Your task to perform on an android device: Go to Amazon Image 0: 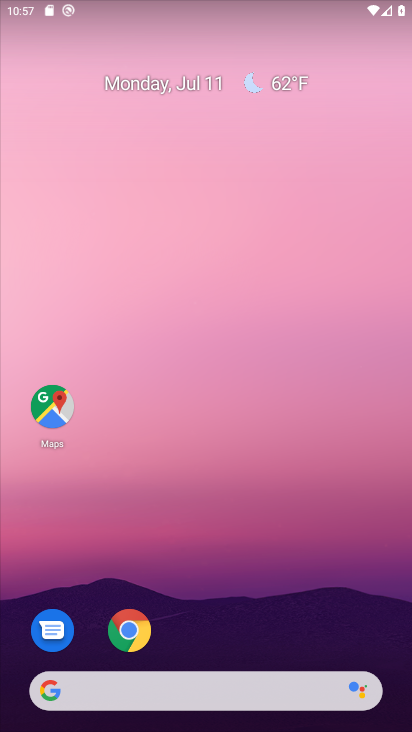
Step 0: click (137, 624)
Your task to perform on an android device: Go to Amazon Image 1: 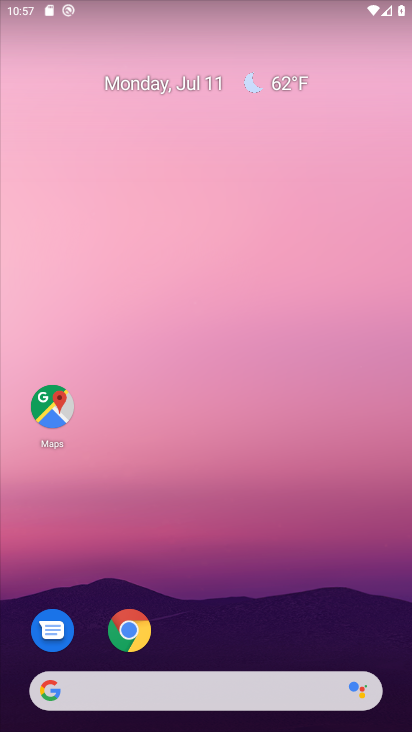
Step 1: click (137, 624)
Your task to perform on an android device: Go to Amazon Image 2: 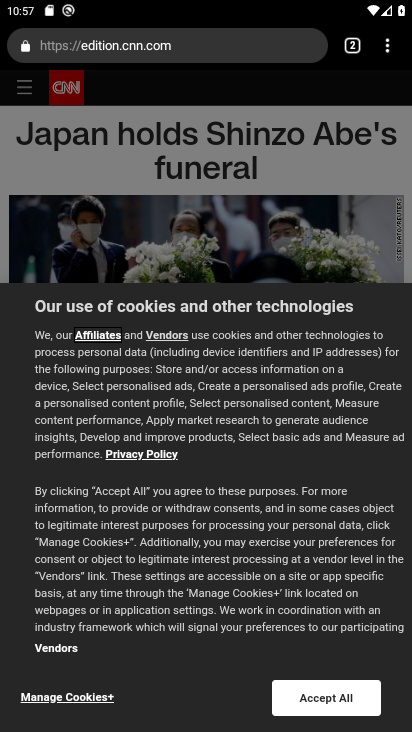
Step 2: click (386, 47)
Your task to perform on an android device: Go to Amazon Image 3: 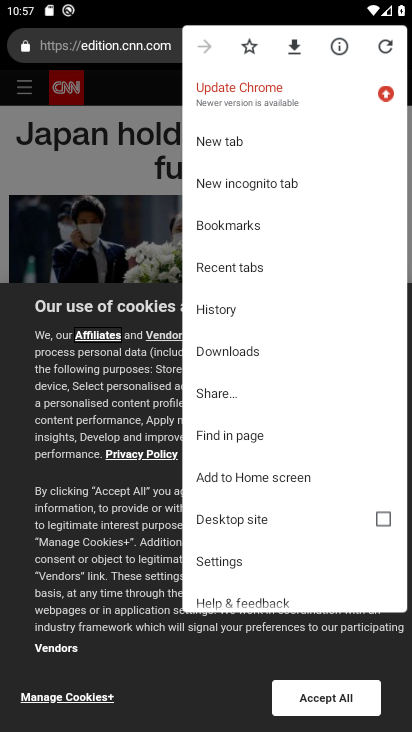
Step 3: click (227, 145)
Your task to perform on an android device: Go to Amazon Image 4: 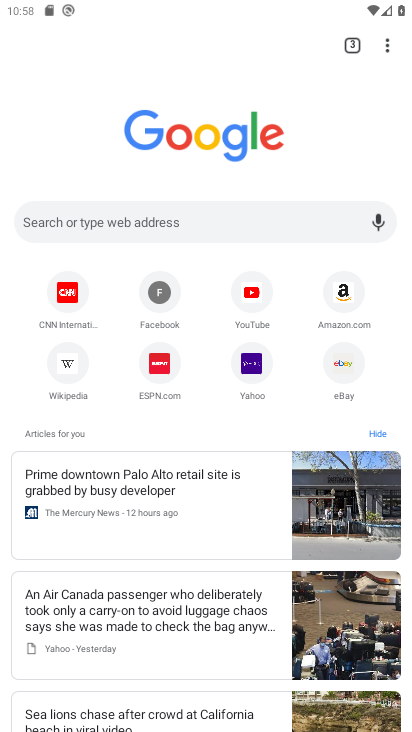
Step 4: click (346, 287)
Your task to perform on an android device: Go to Amazon Image 5: 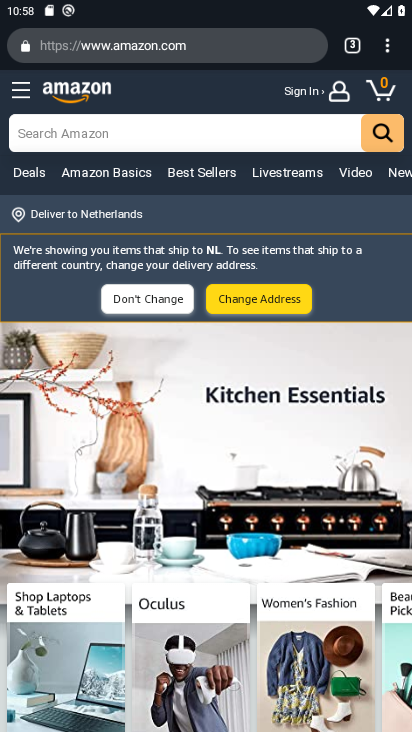
Step 5: task complete